Your task to perform on an android device: Do I have any events this weekend? Image 0: 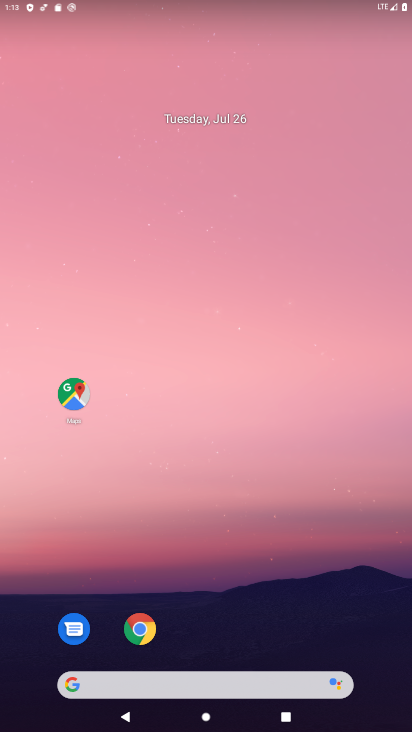
Step 0: press home button
Your task to perform on an android device: Do I have any events this weekend? Image 1: 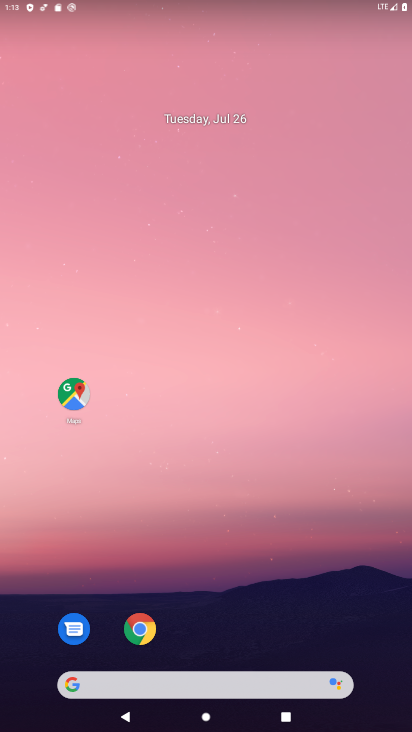
Step 1: drag from (390, 720) to (294, 131)
Your task to perform on an android device: Do I have any events this weekend? Image 2: 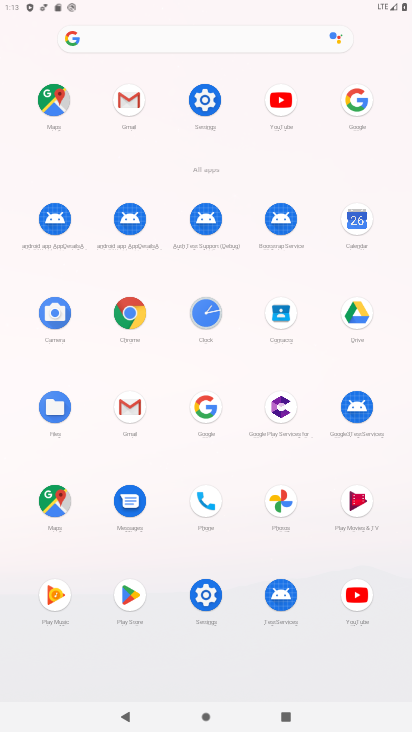
Step 2: click (402, 253)
Your task to perform on an android device: Do I have any events this weekend? Image 3: 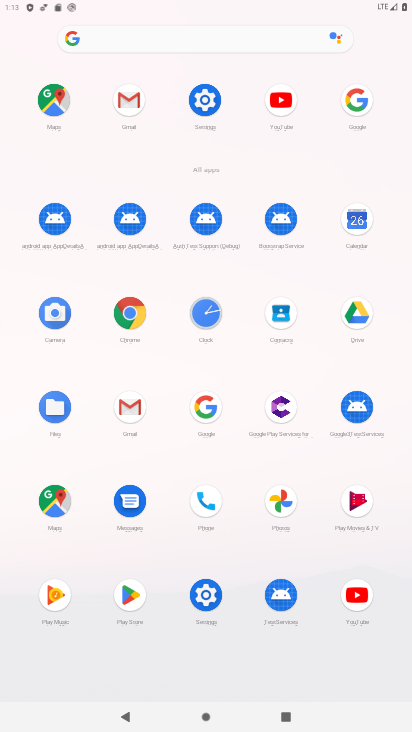
Step 3: click (356, 227)
Your task to perform on an android device: Do I have any events this weekend? Image 4: 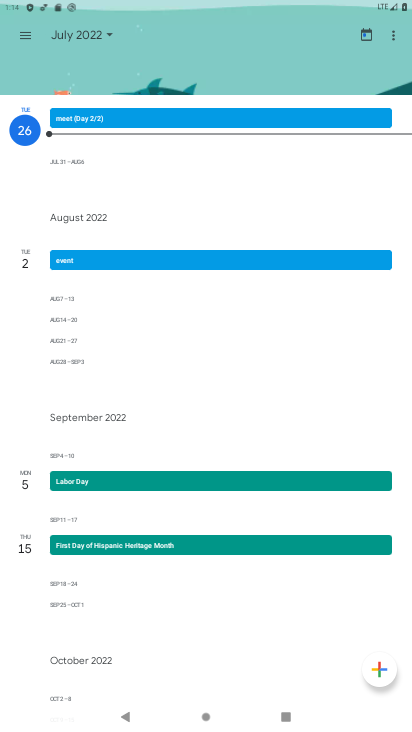
Step 4: task complete